Your task to perform on an android device: Open display settings Image 0: 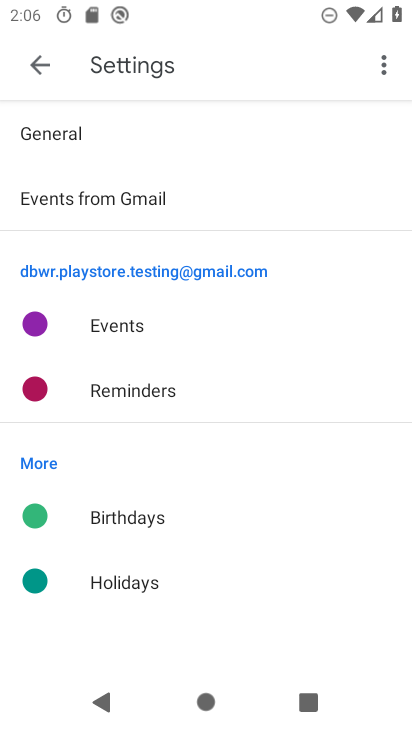
Step 0: press home button
Your task to perform on an android device: Open display settings Image 1: 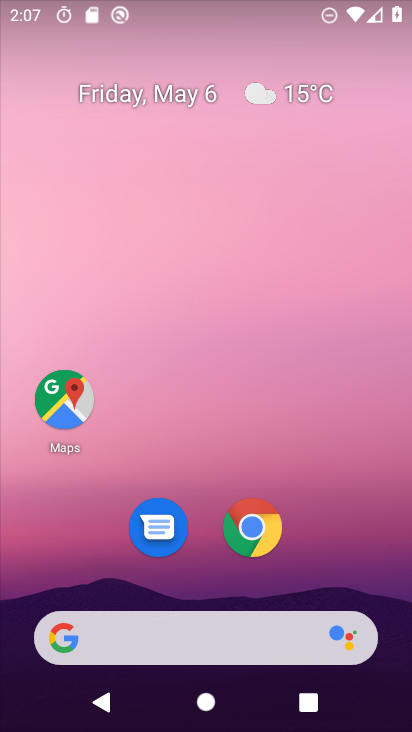
Step 1: drag from (304, 562) to (78, 99)
Your task to perform on an android device: Open display settings Image 2: 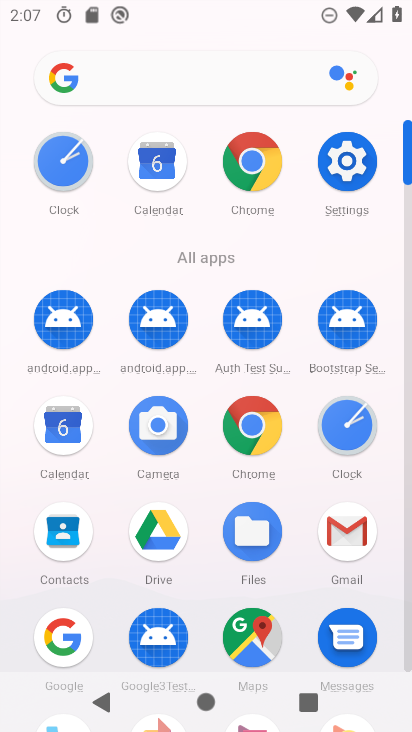
Step 2: click (350, 151)
Your task to perform on an android device: Open display settings Image 3: 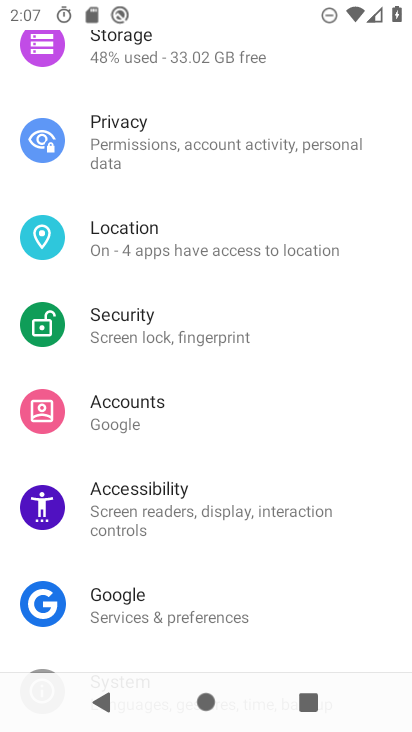
Step 3: drag from (190, 286) to (193, 612)
Your task to perform on an android device: Open display settings Image 4: 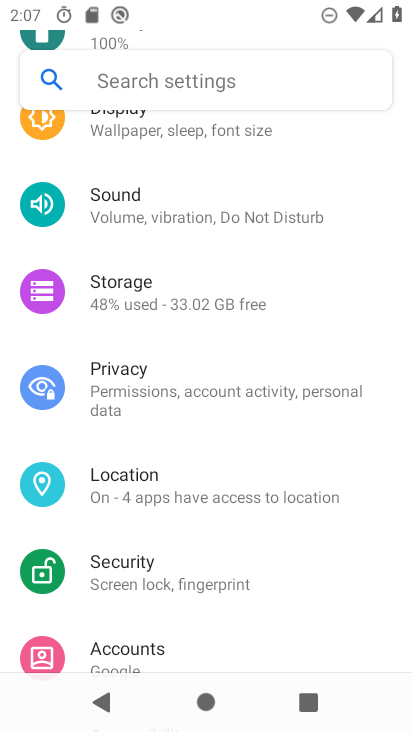
Step 4: drag from (172, 235) to (173, 551)
Your task to perform on an android device: Open display settings Image 5: 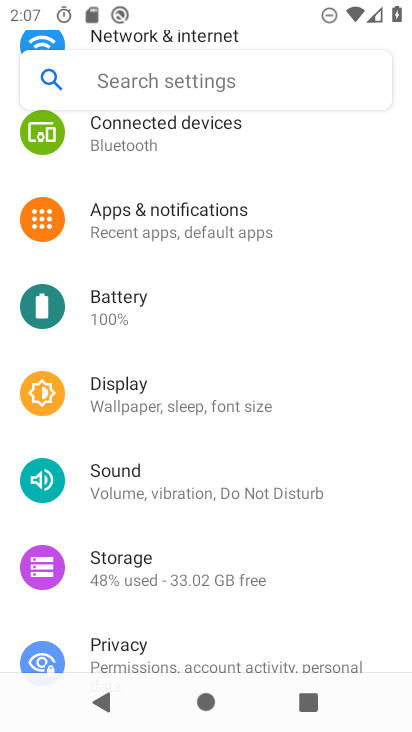
Step 5: click (134, 396)
Your task to perform on an android device: Open display settings Image 6: 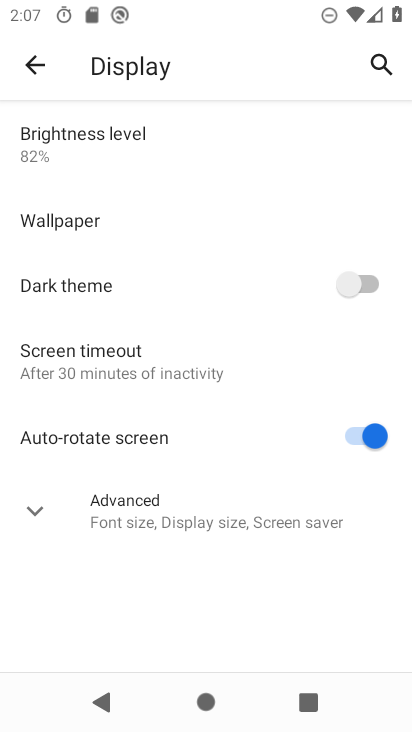
Step 6: click (146, 527)
Your task to perform on an android device: Open display settings Image 7: 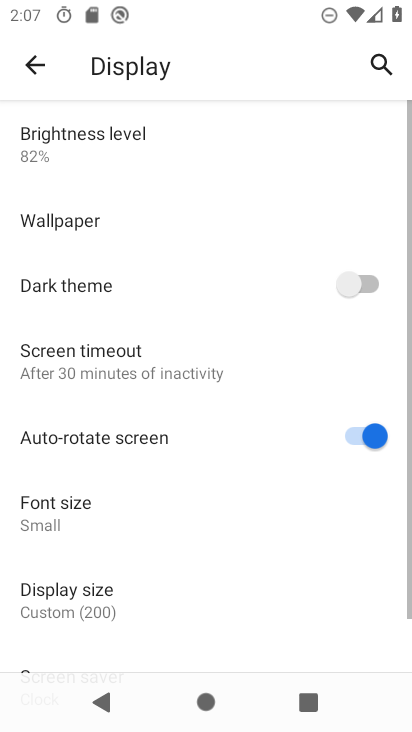
Step 7: drag from (144, 604) to (147, 319)
Your task to perform on an android device: Open display settings Image 8: 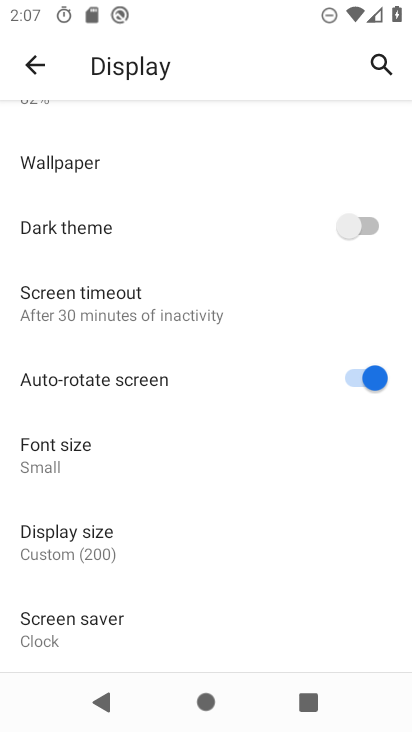
Step 8: click (145, 288)
Your task to perform on an android device: Open display settings Image 9: 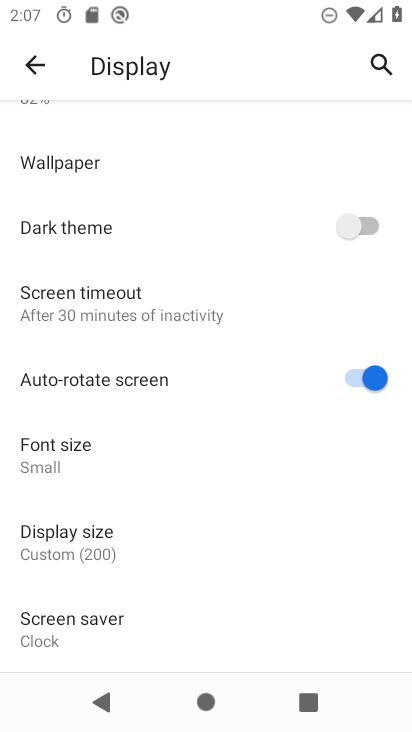
Step 9: task complete